Your task to perform on an android device: Open Chrome and go to settings Image 0: 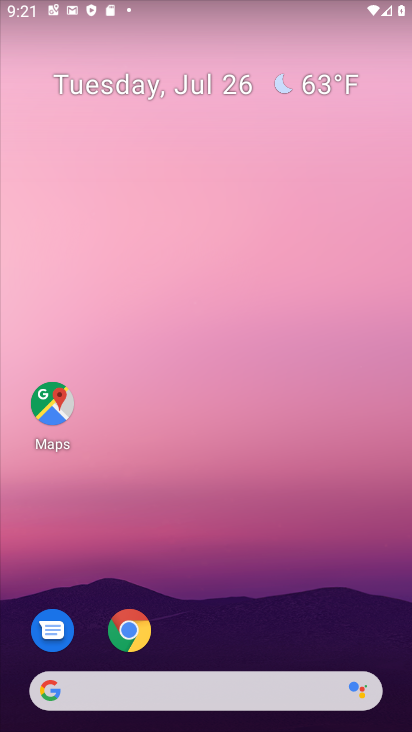
Step 0: press home button
Your task to perform on an android device: Open Chrome and go to settings Image 1: 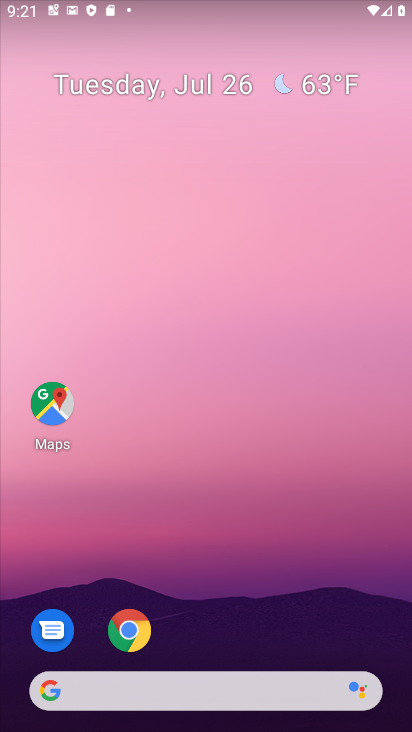
Step 1: click (125, 623)
Your task to perform on an android device: Open Chrome and go to settings Image 2: 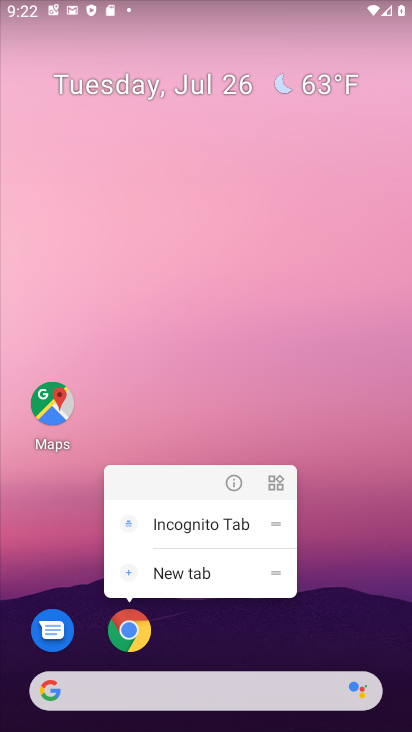
Step 2: click (127, 622)
Your task to perform on an android device: Open Chrome and go to settings Image 3: 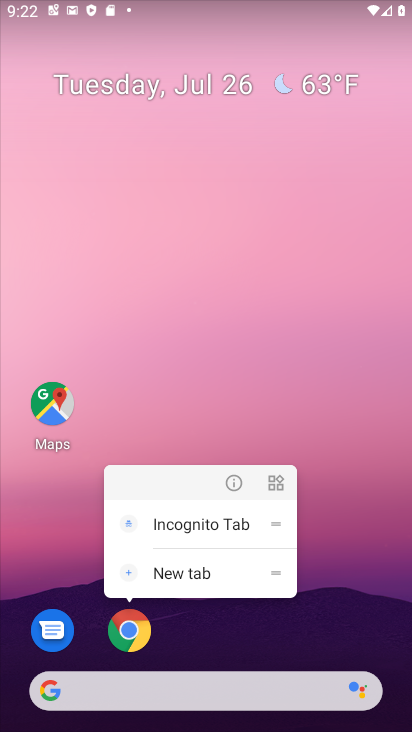
Step 3: click (224, 633)
Your task to perform on an android device: Open Chrome and go to settings Image 4: 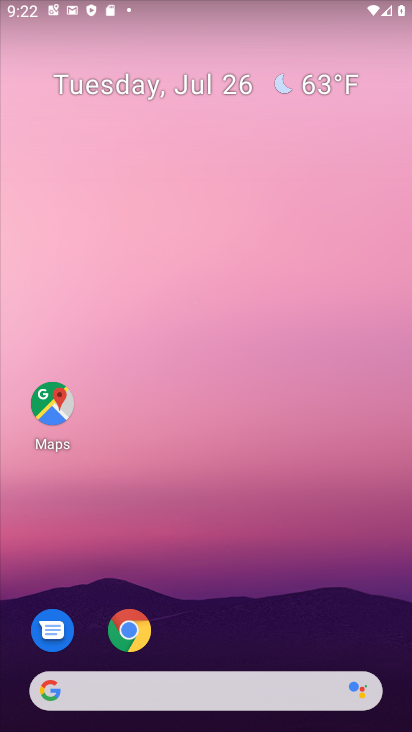
Step 4: click (121, 624)
Your task to perform on an android device: Open Chrome and go to settings Image 5: 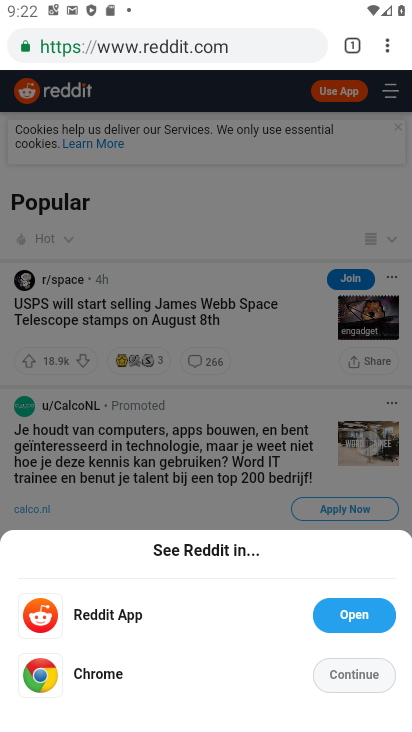
Step 5: click (387, 41)
Your task to perform on an android device: Open Chrome and go to settings Image 6: 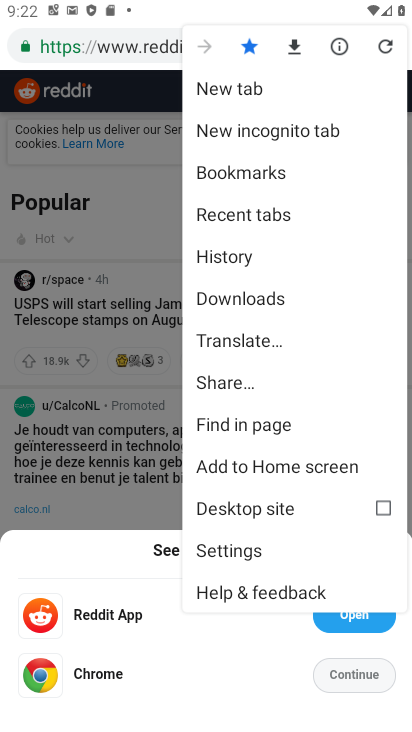
Step 6: click (264, 546)
Your task to perform on an android device: Open Chrome and go to settings Image 7: 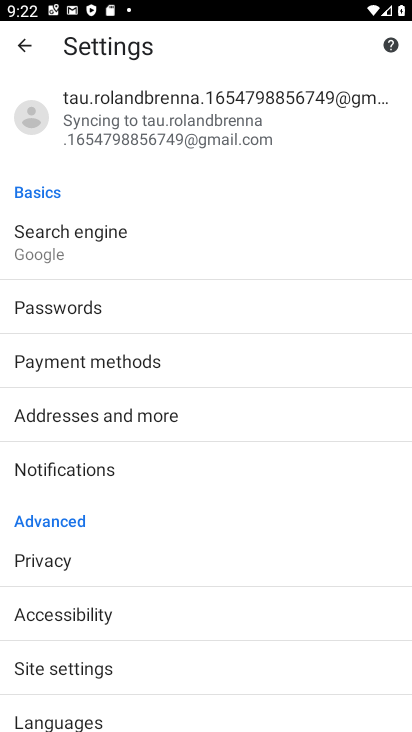
Step 7: task complete